Your task to perform on an android device: Open privacy settings Image 0: 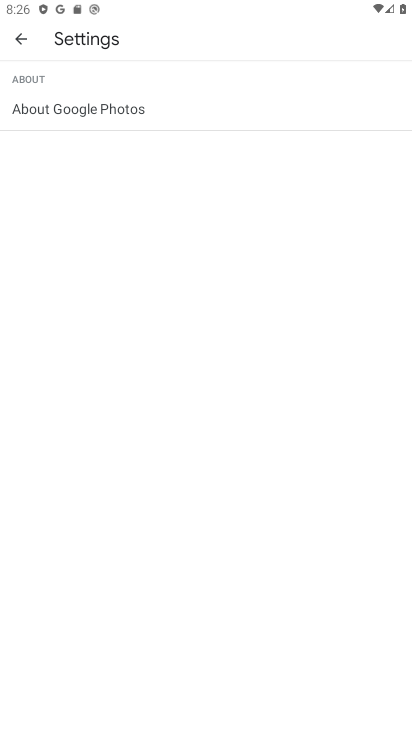
Step 0: press home button
Your task to perform on an android device: Open privacy settings Image 1: 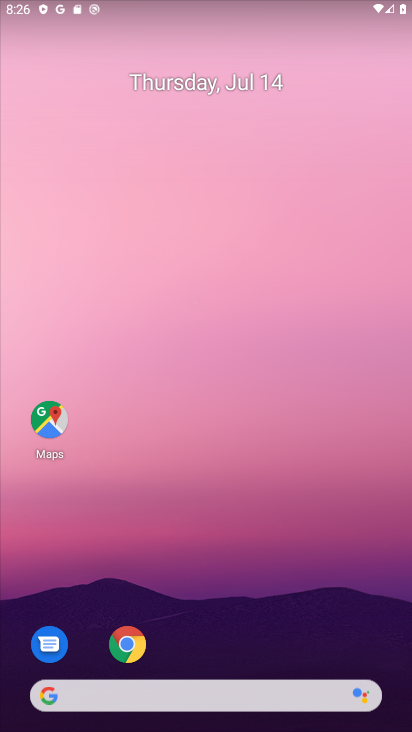
Step 1: drag from (246, 684) to (267, 41)
Your task to perform on an android device: Open privacy settings Image 2: 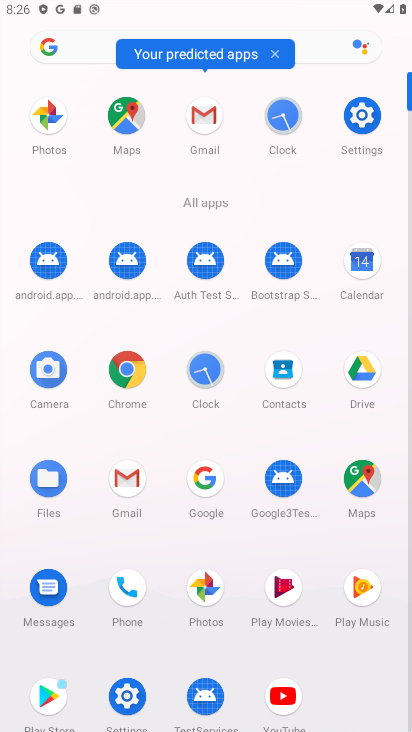
Step 2: click (141, 368)
Your task to perform on an android device: Open privacy settings Image 3: 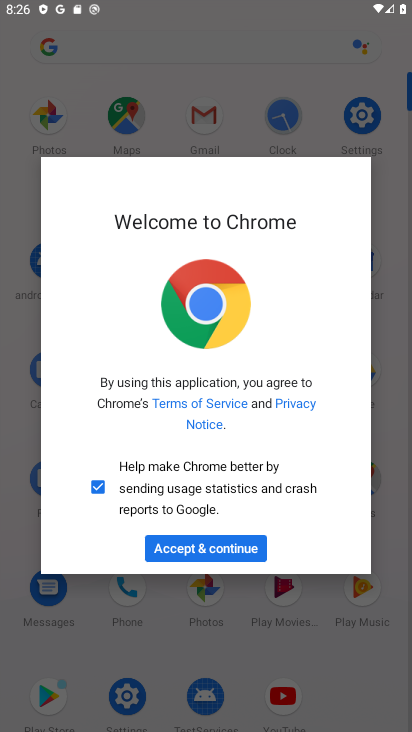
Step 3: click (231, 538)
Your task to perform on an android device: Open privacy settings Image 4: 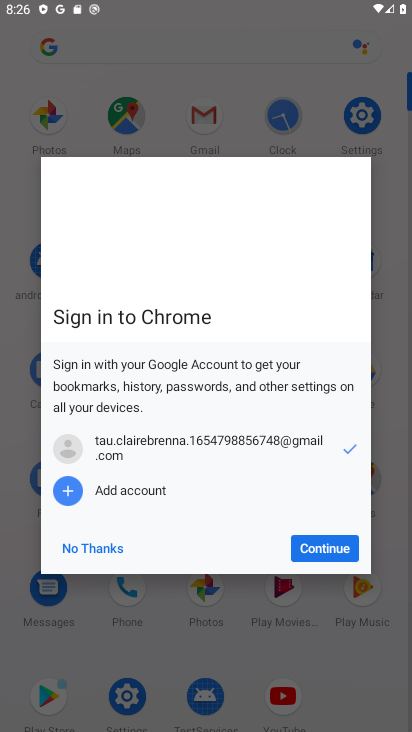
Step 4: click (313, 546)
Your task to perform on an android device: Open privacy settings Image 5: 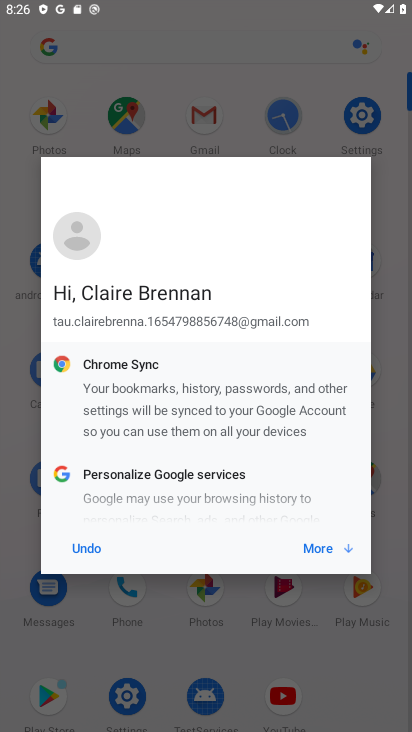
Step 5: click (313, 546)
Your task to perform on an android device: Open privacy settings Image 6: 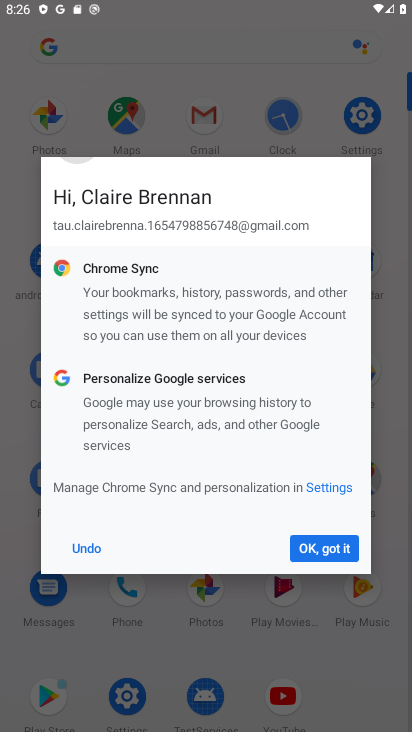
Step 6: click (328, 547)
Your task to perform on an android device: Open privacy settings Image 7: 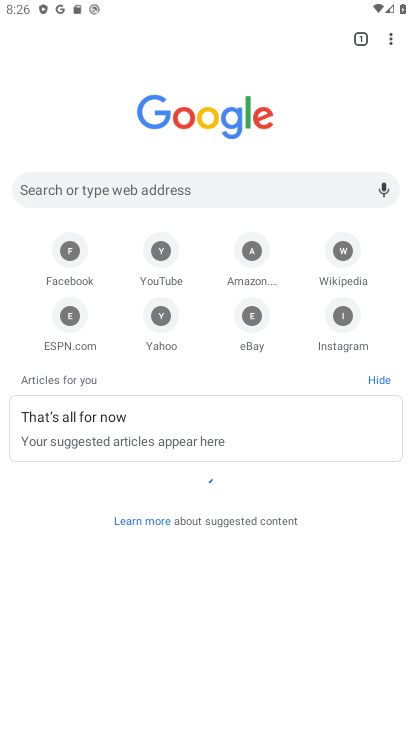
Step 7: drag from (391, 26) to (307, 335)
Your task to perform on an android device: Open privacy settings Image 8: 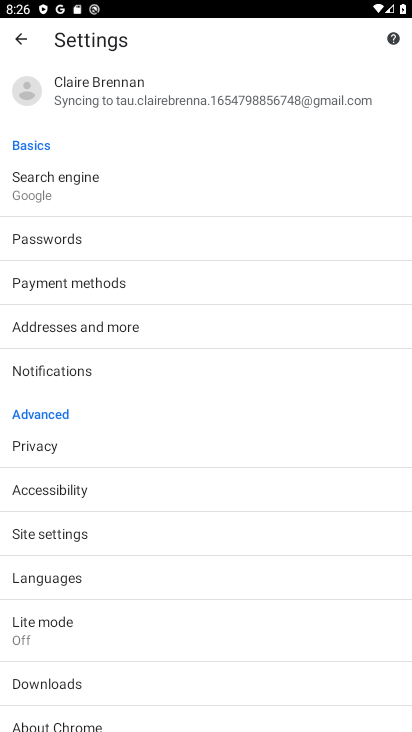
Step 8: click (144, 447)
Your task to perform on an android device: Open privacy settings Image 9: 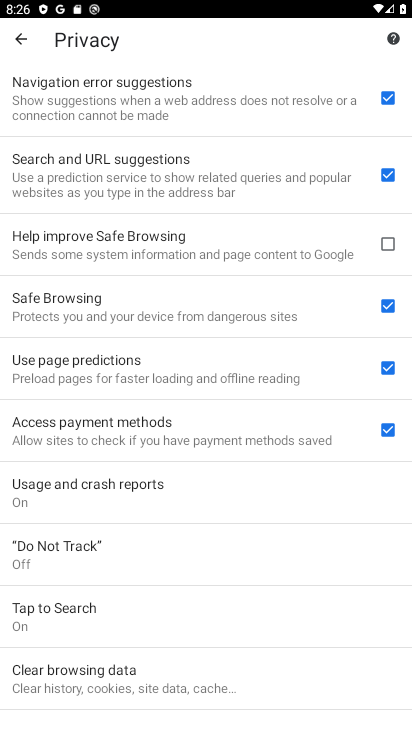
Step 9: task complete